Your task to perform on an android device: turn off wifi Image 0: 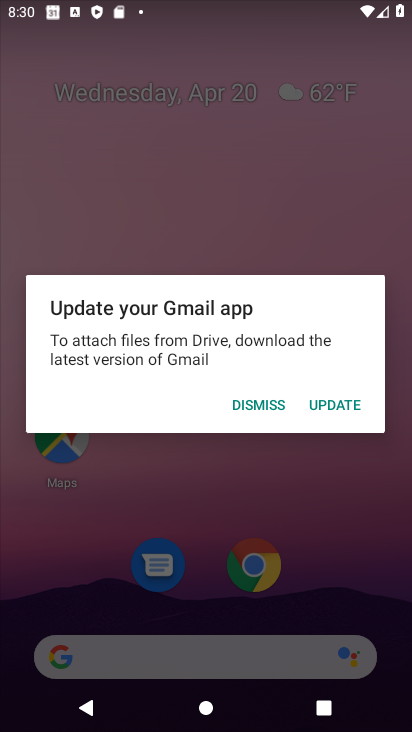
Step 0: press home button
Your task to perform on an android device: turn off wifi Image 1: 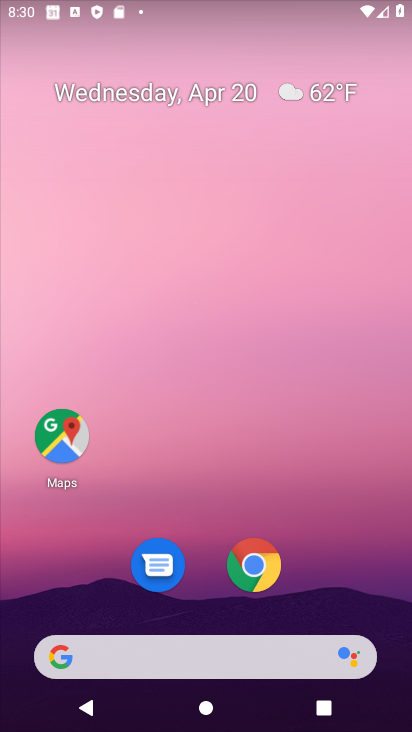
Step 1: drag from (387, 419) to (304, 3)
Your task to perform on an android device: turn off wifi Image 2: 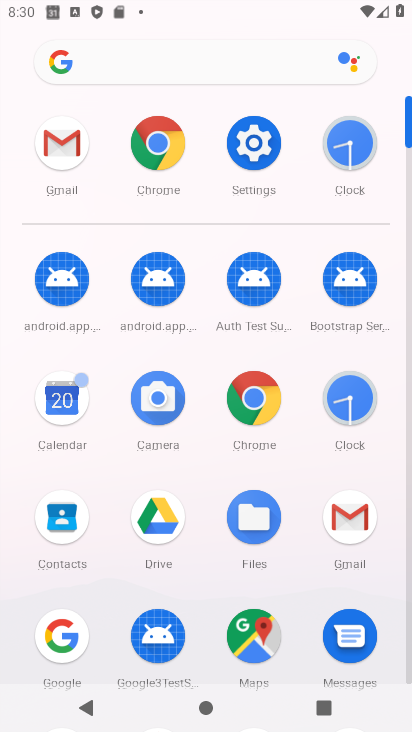
Step 2: click (258, 133)
Your task to perform on an android device: turn off wifi Image 3: 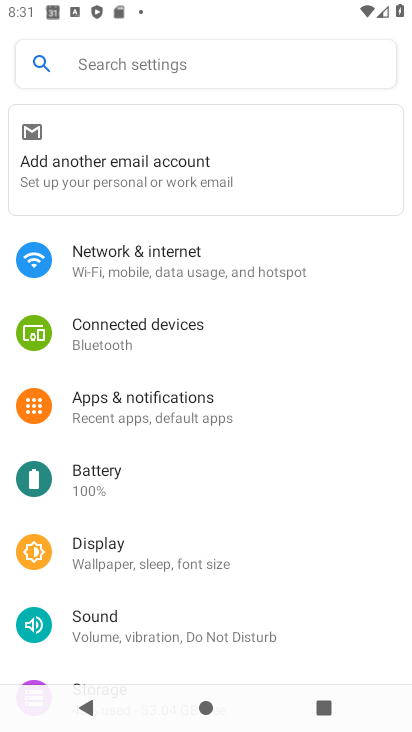
Step 3: click (100, 257)
Your task to perform on an android device: turn off wifi Image 4: 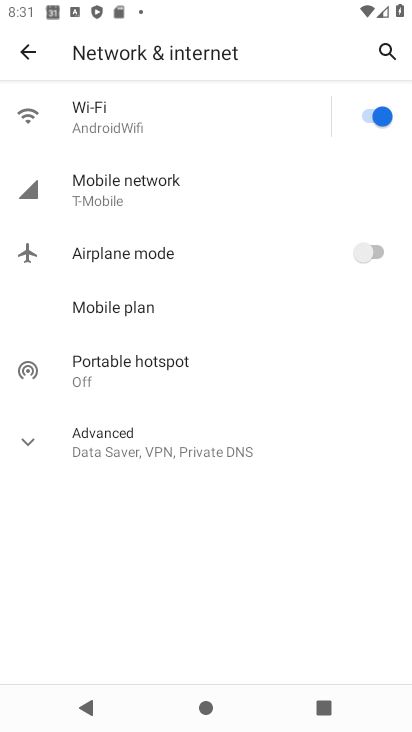
Step 4: click (378, 125)
Your task to perform on an android device: turn off wifi Image 5: 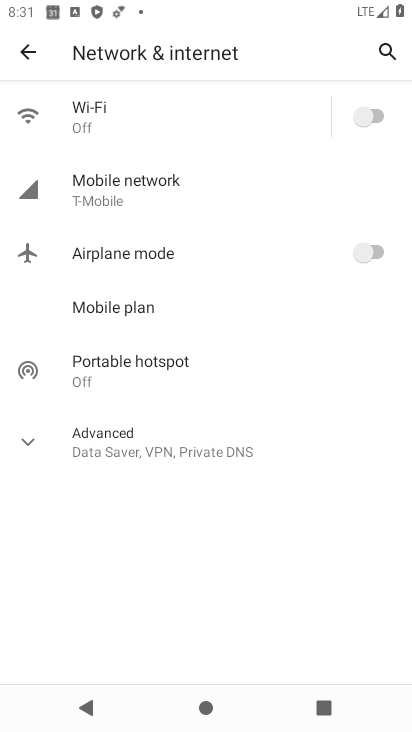
Step 5: task complete